Your task to perform on an android device: Search for sushi restaurants on Maps Image 0: 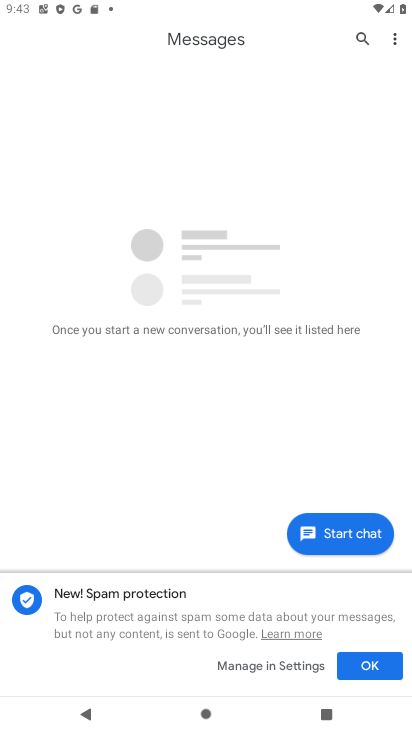
Step 0: press home button
Your task to perform on an android device: Search for sushi restaurants on Maps Image 1: 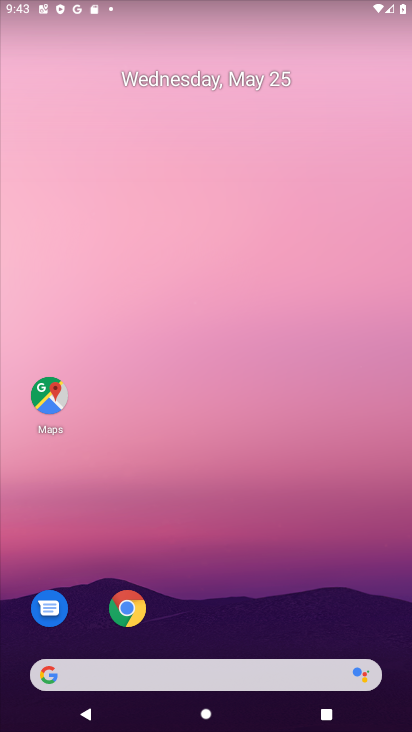
Step 1: click (49, 396)
Your task to perform on an android device: Search for sushi restaurants on Maps Image 2: 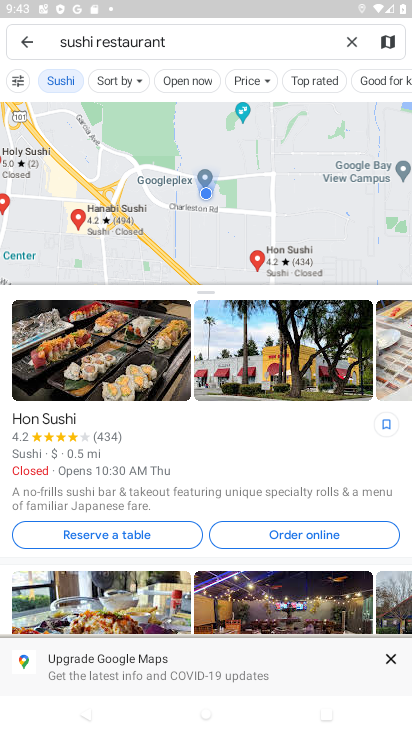
Step 2: task complete